Your task to perform on an android device: turn vacation reply on in the gmail app Image 0: 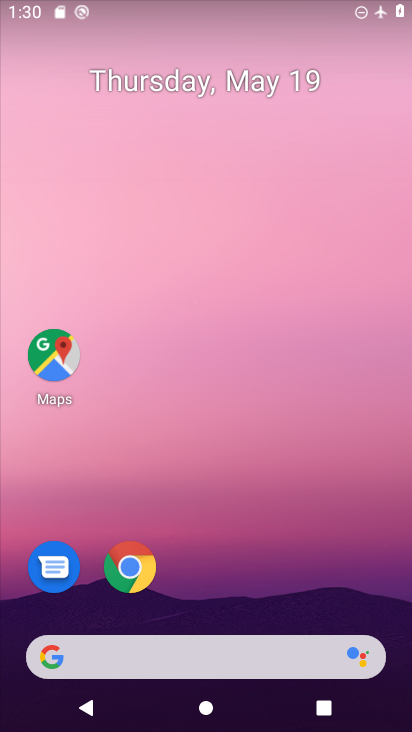
Step 0: drag from (259, 521) to (253, 34)
Your task to perform on an android device: turn vacation reply on in the gmail app Image 1: 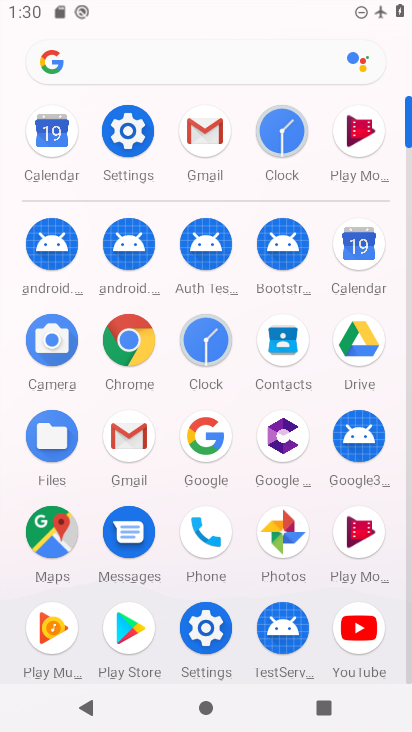
Step 1: click (212, 135)
Your task to perform on an android device: turn vacation reply on in the gmail app Image 2: 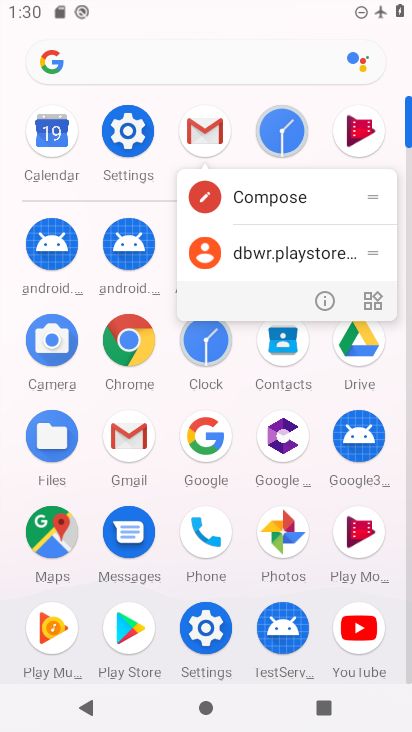
Step 2: click (212, 135)
Your task to perform on an android device: turn vacation reply on in the gmail app Image 3: 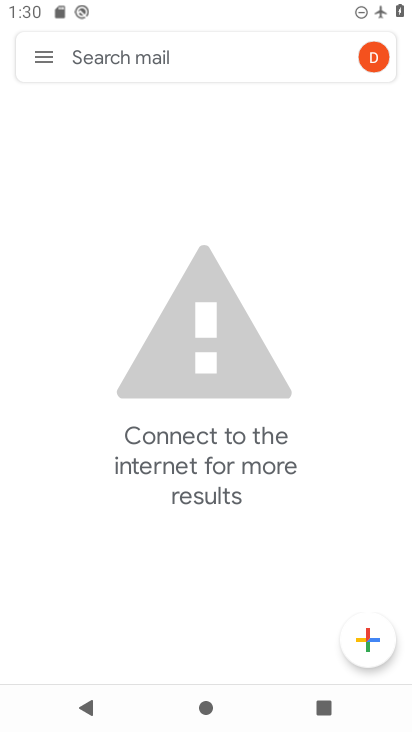
Step 3: click (42, 57)
Your task to perform on an android device: turn vacation reply on in the gmail app Image 4: 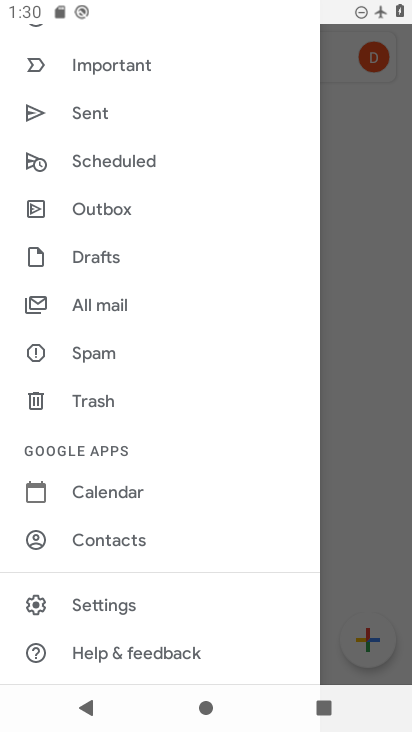
Step 4: click (124, 601)
Your task to perform on an android device: turn vacation reply on in the gmail app Image 5: 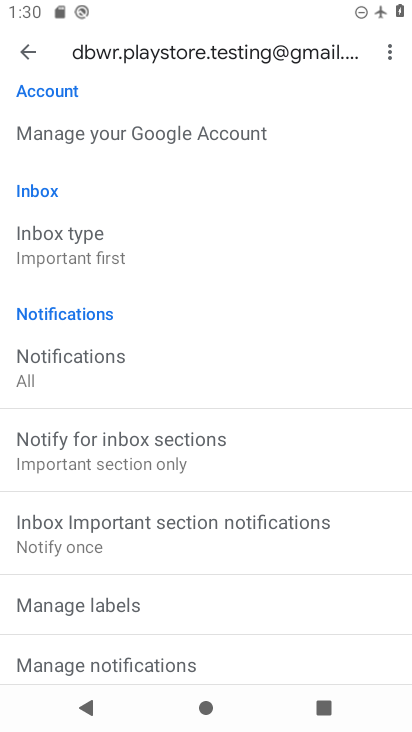
Step 5: drag from (292, 451) to (280, 100)
Your task to perform on an android device: turn vacation reply on in the gmail app Image 6: 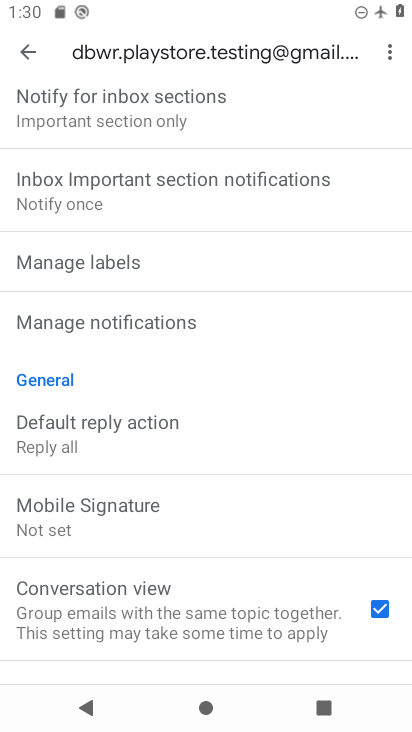
Step 6: drag from (228, 366) to (255, 89)
Your task to perform on an android device: turn vacation reply on in the gmail app Image 7: 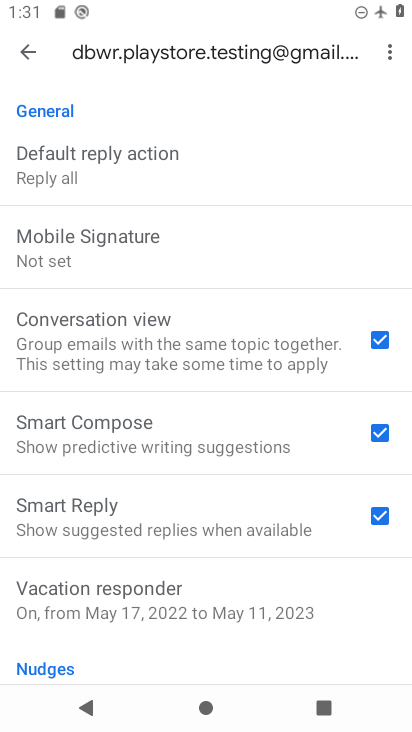
Step 7: click (241, 586)
Your task to perform on an android device: turn vacation reply on in the gmail app Image 8: 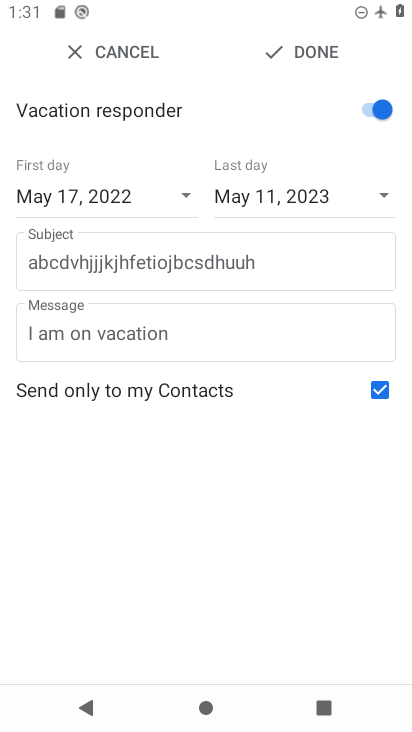
Step 8: task complete